Your task to perform on an android device: Open Wikipedia Image 0: 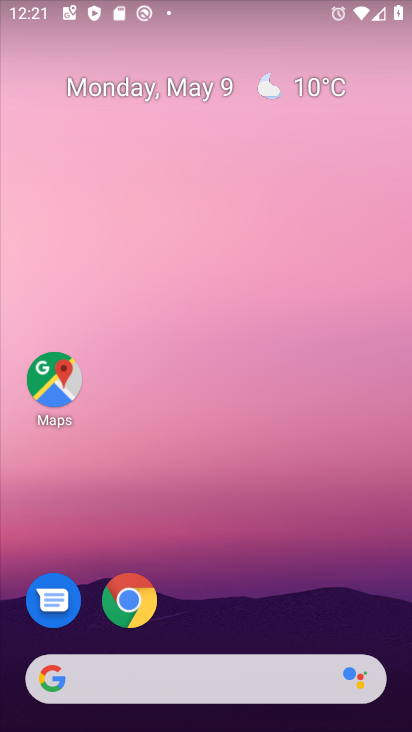
Step 0: click (123, 601)
Your task to perform on an android device: Open Wikipedia Image 1: 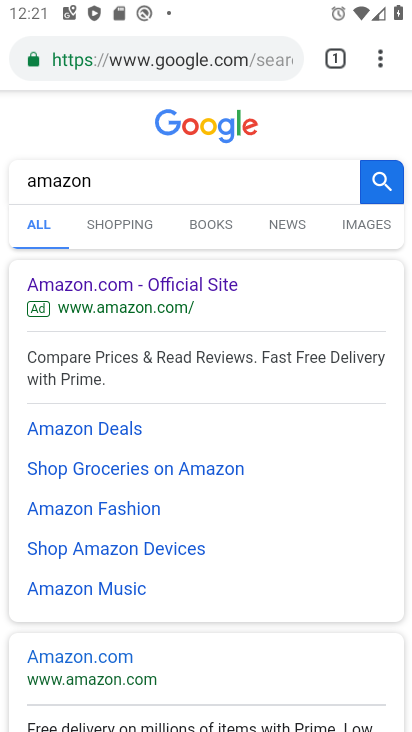
Step 1: click (144, 63)
Your task to perform on an android device: Open Wikipedia Image 2: 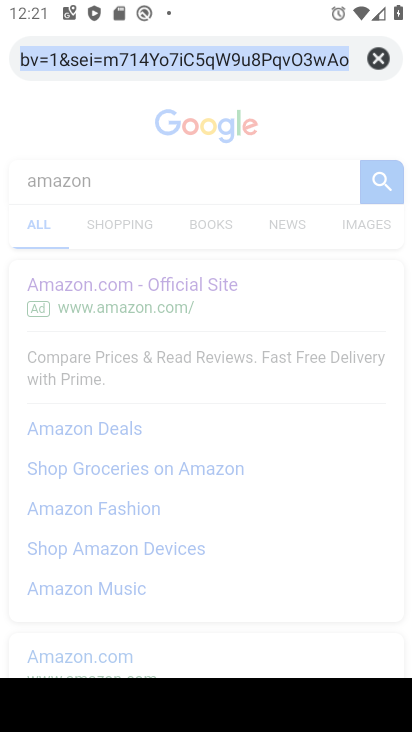
Step 2: type "wikipedia"
Your task to perform on an android device: Open Wikipedia Image 3: 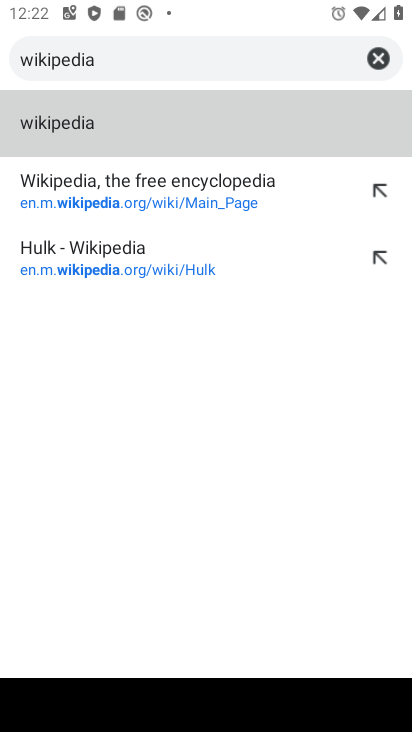
Step 3: click (127, 129)
Your task to perform on an android device: Open Wikipedia Image 4: 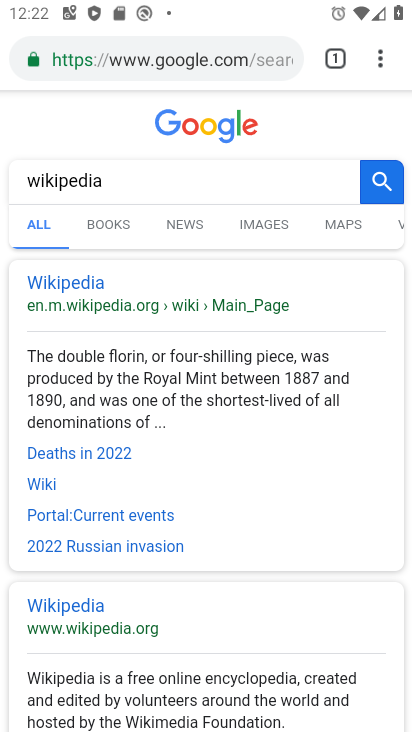
Step 4: task complete